Your task to perform on an android device: change the clock display to analog Image 0: 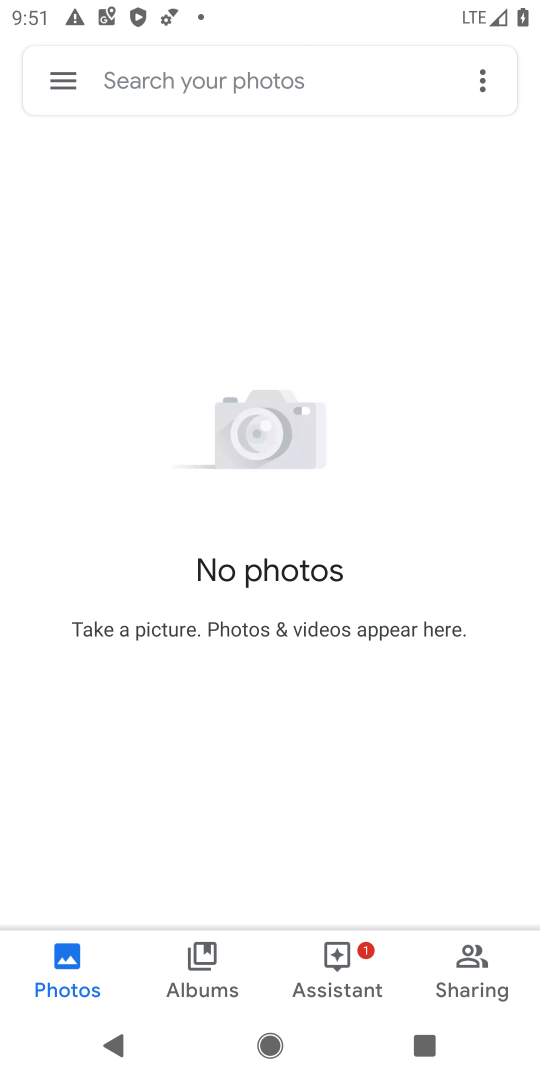
Step 0: press home button
Your task to perform on an android device: change the clock display to analog Image 1: 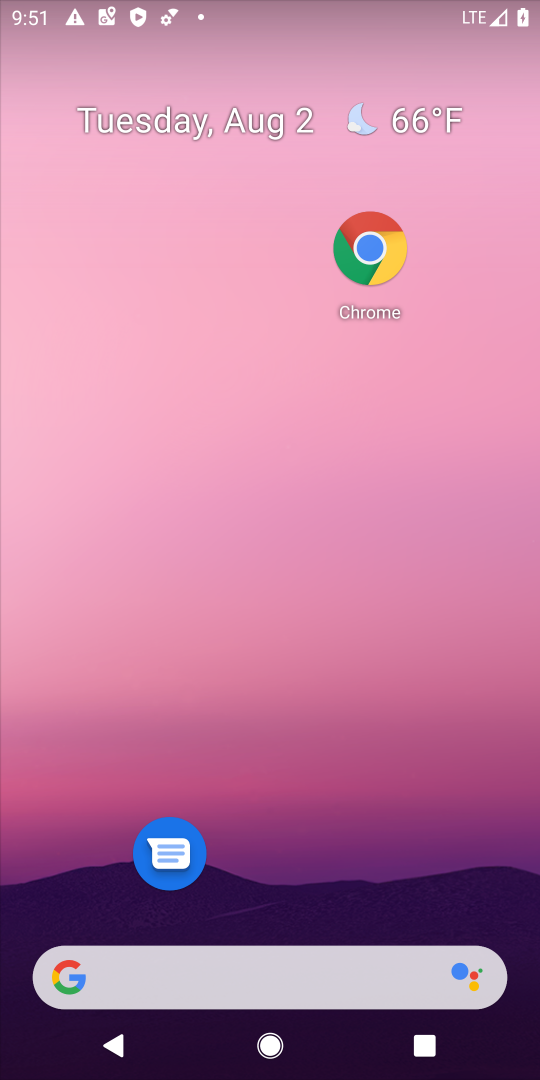
Step 1: drag from (319, 913) to (174, 96)
Your task to perform on an android device: change the clock display to analog Image 2: 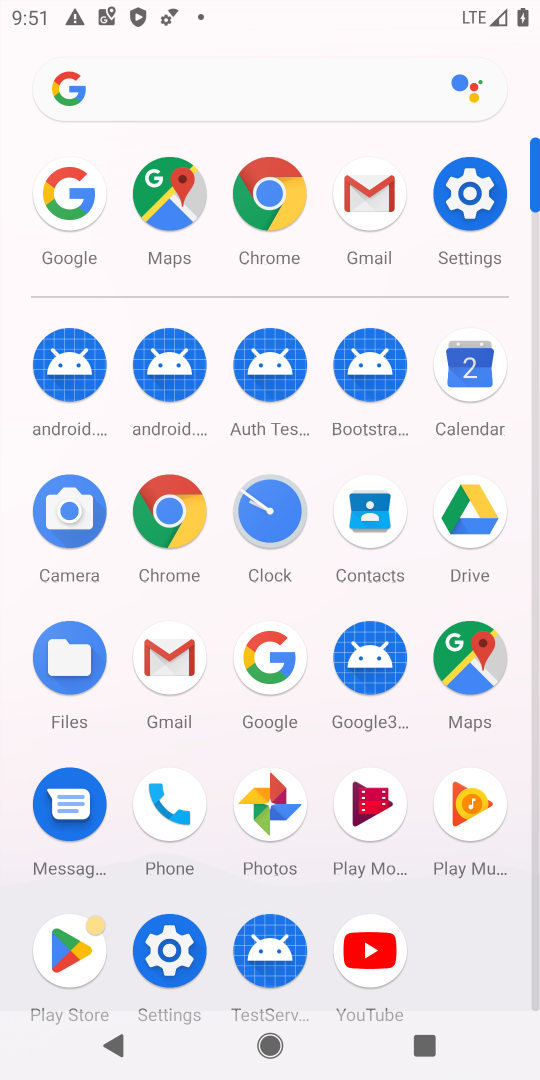
Step 2: click (256, 494)
Your task to perform on an android device: change the clock display to analog Image 3: 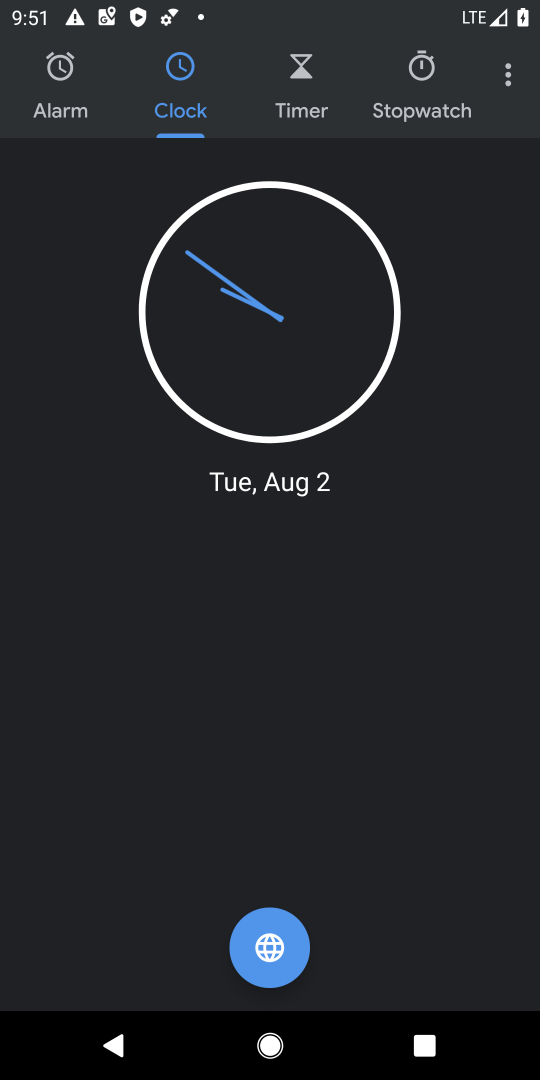
Step 3: drag from (497, 74) to (316, 145)
Your task to perform on an android device: change the clock display to analog Image 4: 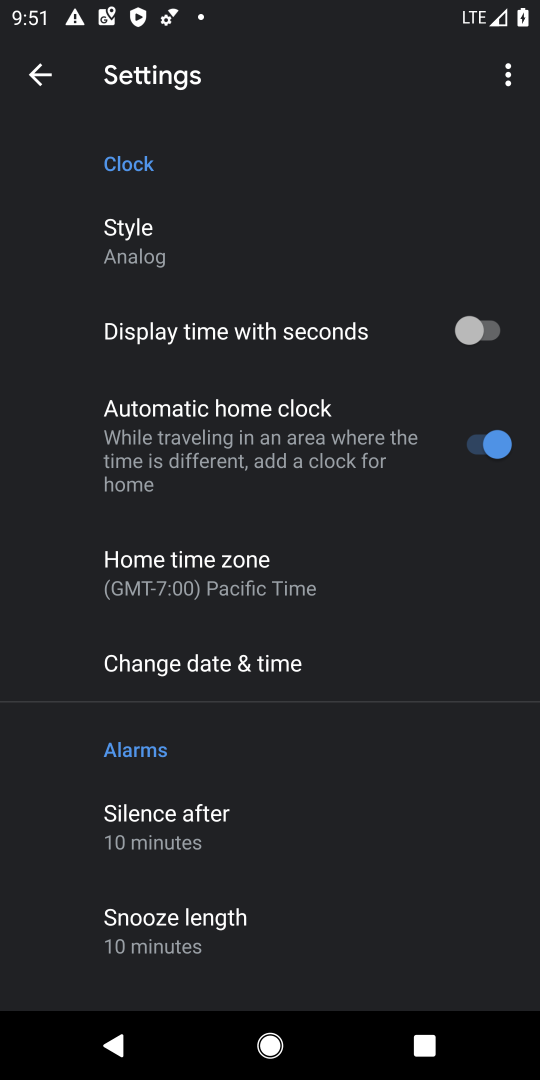
Step 4: click (159, 266)
Your task to perform on an android device: change the clock display to analog Image 5: 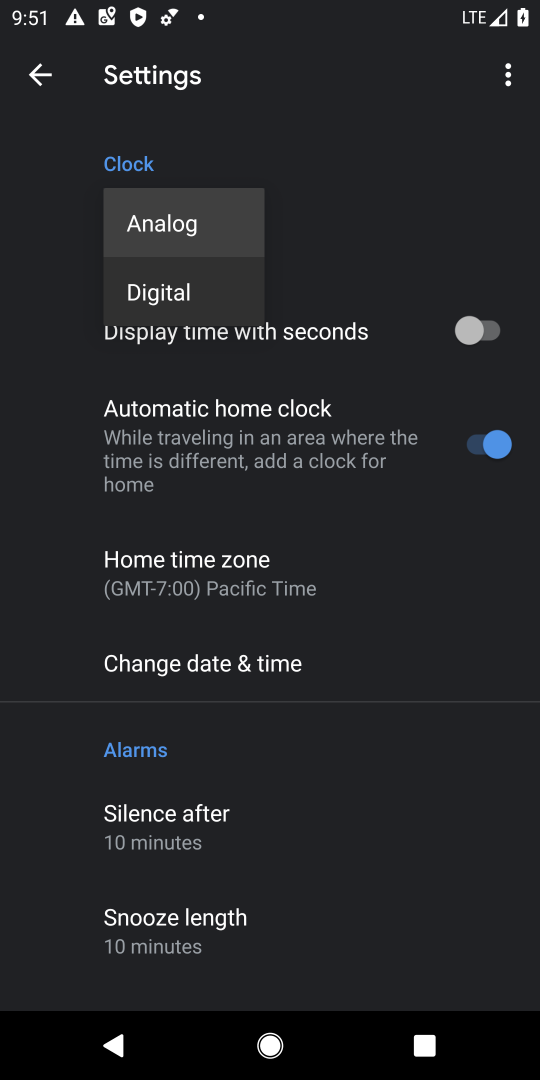
Step 5: click (167, 237)
Your task to perform on an android device: change the clock display to analog Image 6: 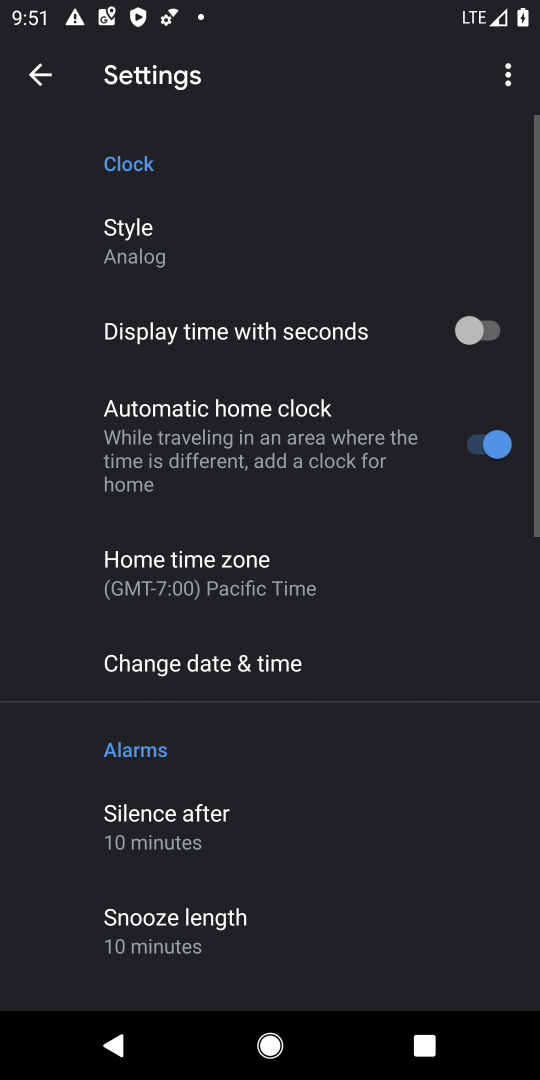
Step 6: task complete